Your task to perform on an android device: open a bookmark in the chrome app Image 0: 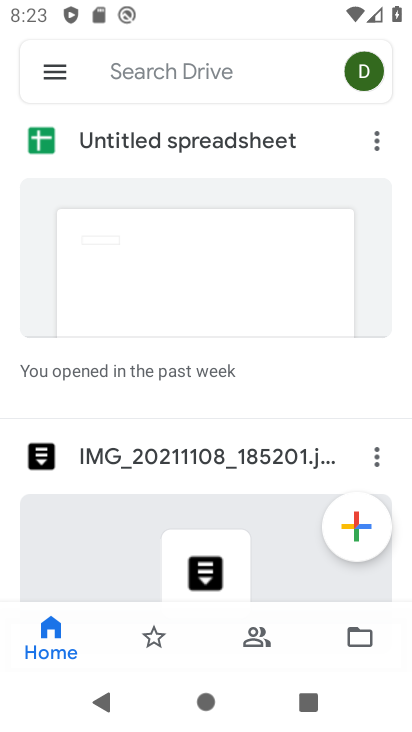
Step 0: press home button
Your task to perform on an android device: open a bookmark in the chrome app Image 1: 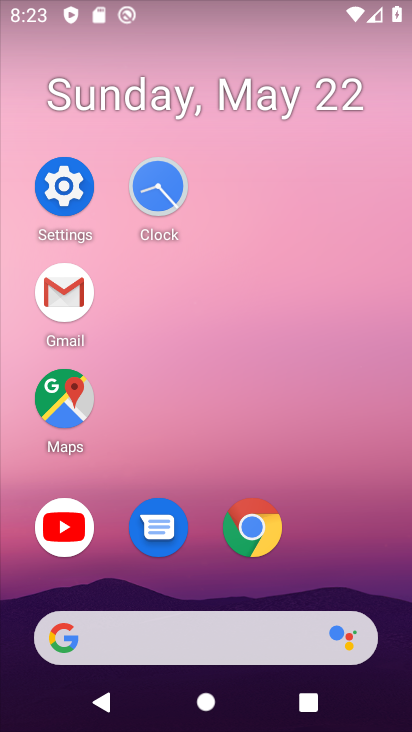
Step 1: click (262, 538)
Your task to perform on an android device: open a bookmark in the chrome app Image 2: 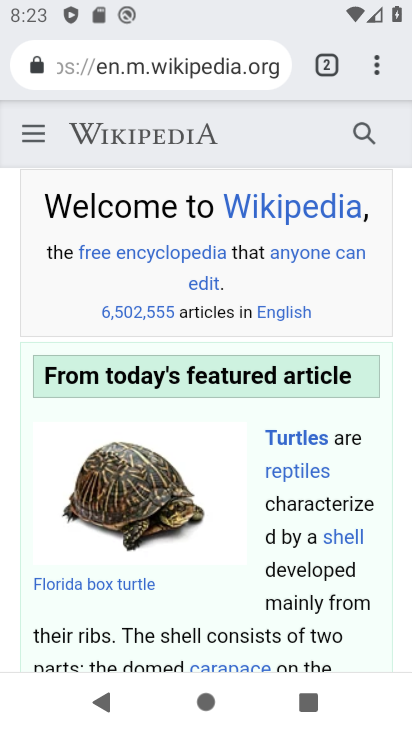
Step 2: click (370, 53)
Your task to perform on an android device: open a bookmark in the chrome app Image 3: 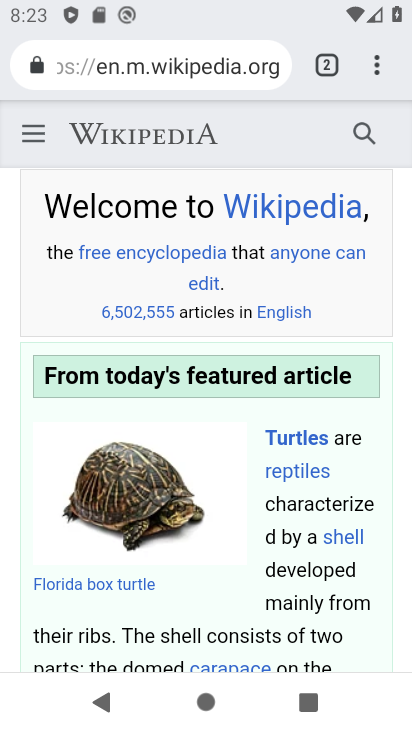
Step 3: click (373, 70)
Your task to perform on an android device: open a bookmark in the chrome app Image 4: 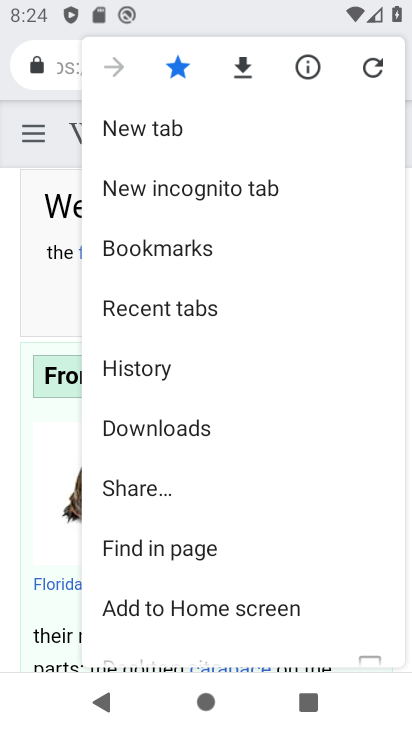
Step 4: click (193, 246)
Your task to perform on an android device: open a bookmark in the chrome app Image 5: 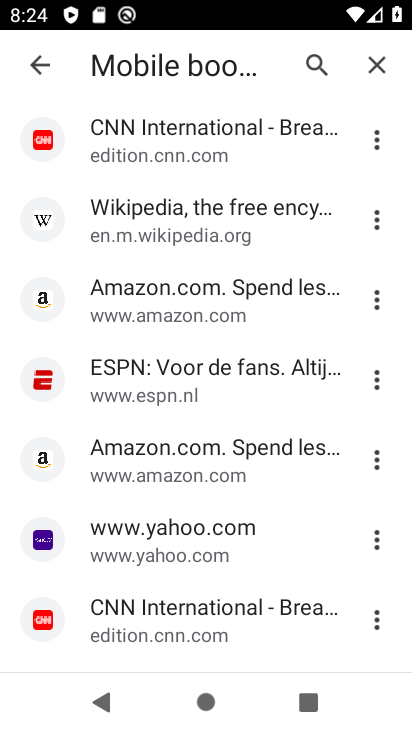
Step 5: task complete